Your task to perform on an android device: change alarm snooze length Image 0: 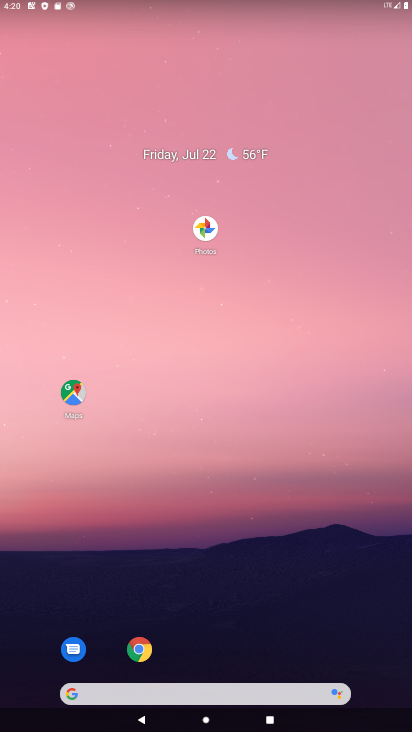
Step 0: drag from (282, 551) to (240, 136)
Your task to perform on an android device: change alarm snooze length Image 1: 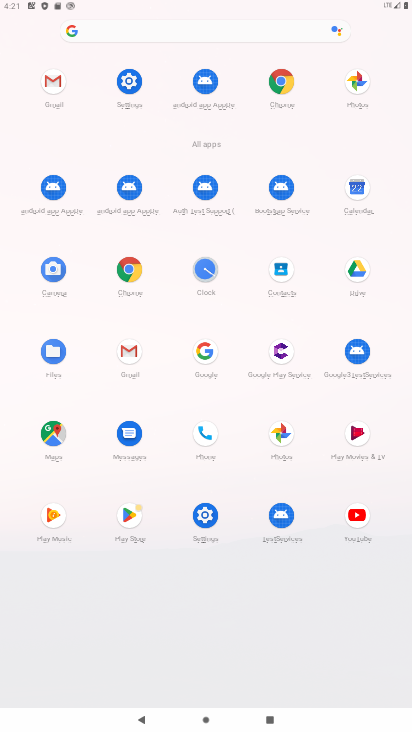
Step 1: click (194, 521)
Your task to perform on an android device: change alarm snooze length Image 2: 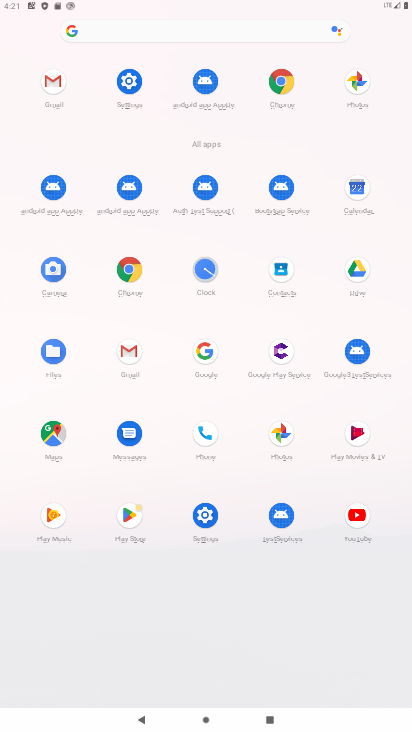
Step 2: click (194, 521)
Your task to perform on an android device: change alarm snooze length Image 3: 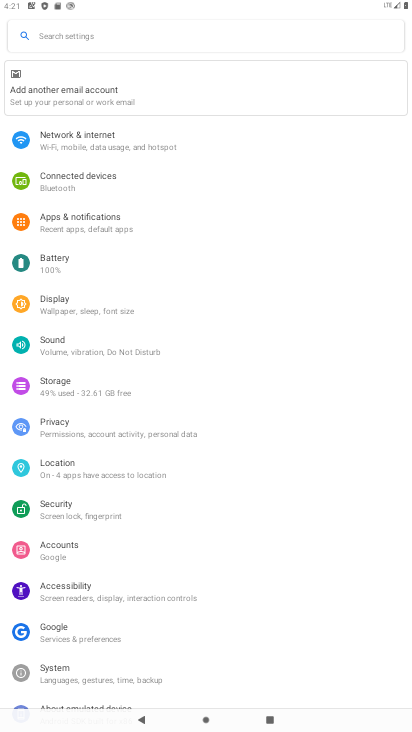
Step 3: press back button
Your task to perform on an android device: change alarm snooze length Image 4: 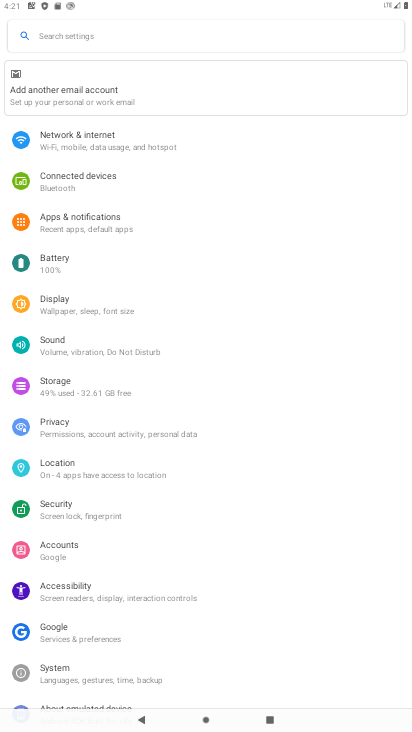
Step 4: press back button
Your task to perform on an android device: change alarm snooze length Image 5: 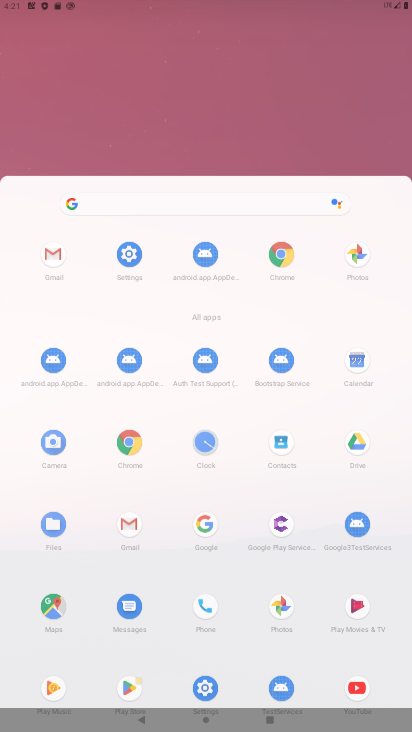
Step 5: press back button
Your task to perform on an android device: change alarm snooze length Image 6: 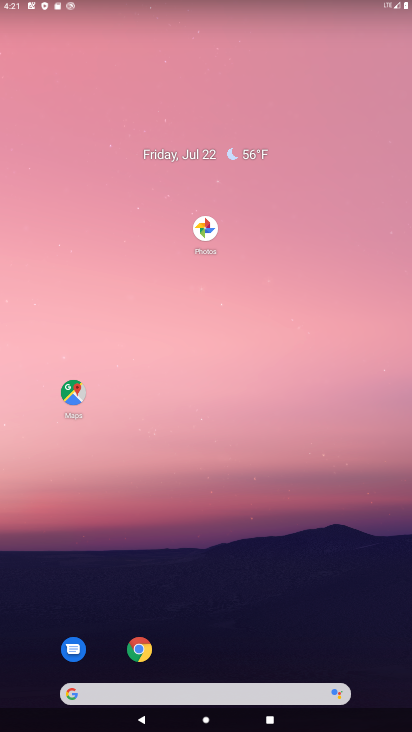
Step 6: drag from (249, 214) to (236, 14)
Your task to perform on an android device: change alarm snooze length Image 7: 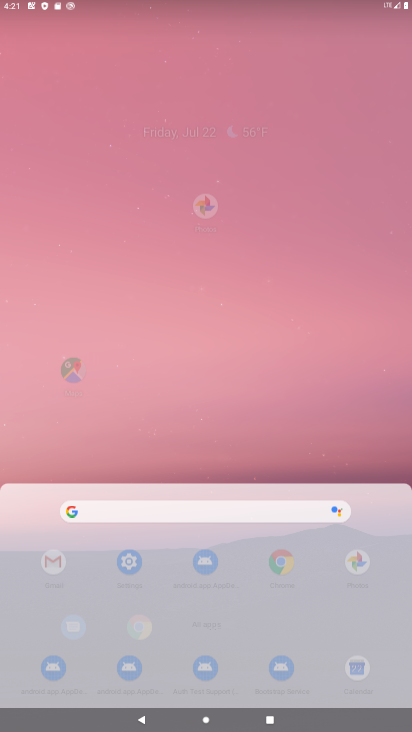
Step 7: drag from (237, 105) to (246, 21)
Your task to perform on an android device: change alarm snooze length Image 8: 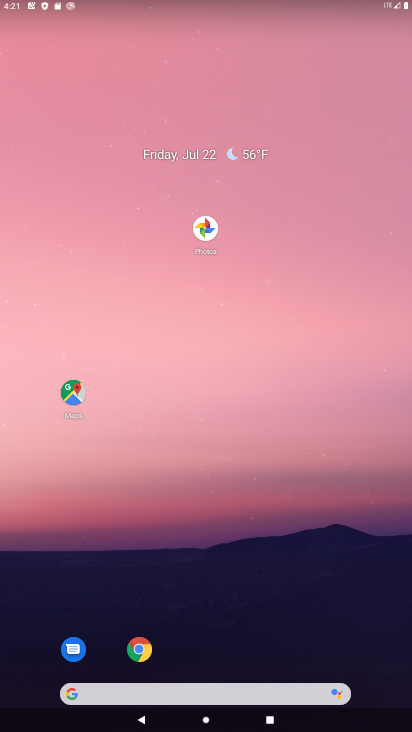
Step 8: drag from (246, 382) to (218, 58)
Your task to perform on an android device: change alarm snooze length Image 9: 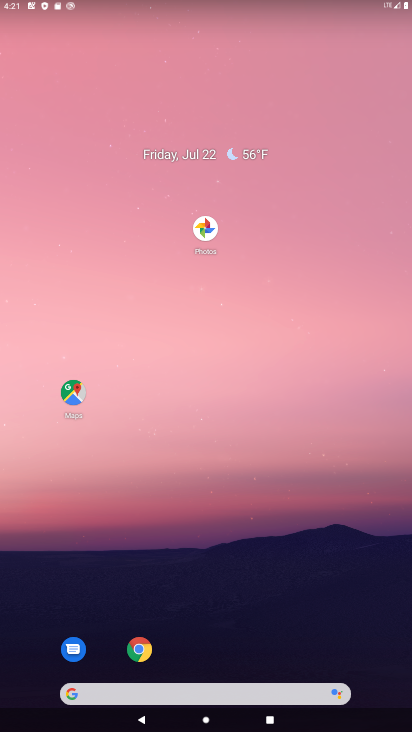
Step 9: click (195, 19)
Your task to perform on an android device: change alarm snooze length Image 10: 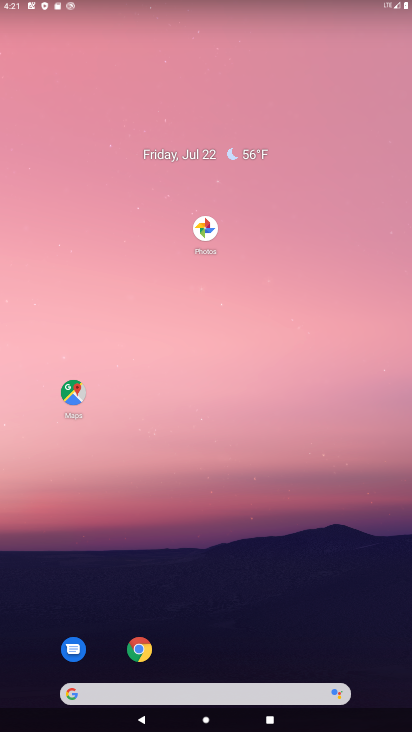
Step 10: drag from (235, 441) to (235, 6)
Your task to perform on an android device: change alarm snooze length Image 11: 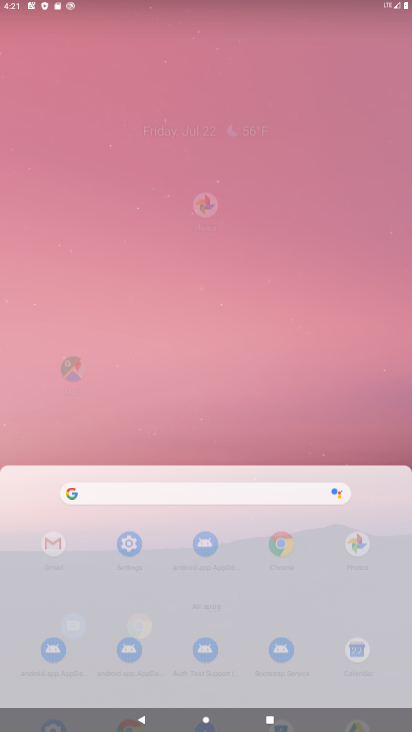
Step 11: drag from (213, 564) to (211, 45)
Your task to perform on an android device: change alarm snooze length Image 12: 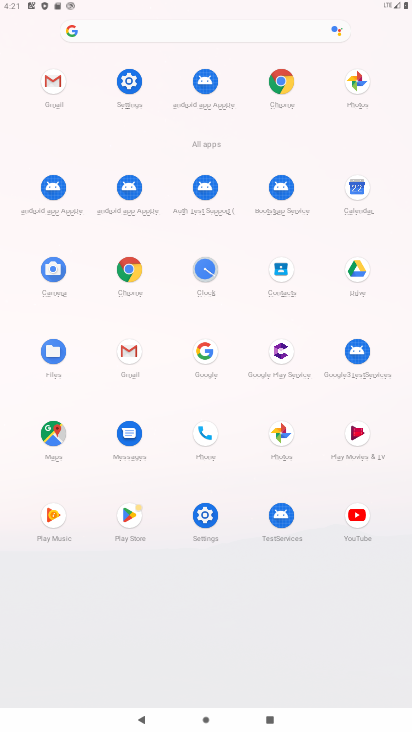
Step 12: click (126, 89)
Your task to perform on an android device: change alarm snooze length Image 13: 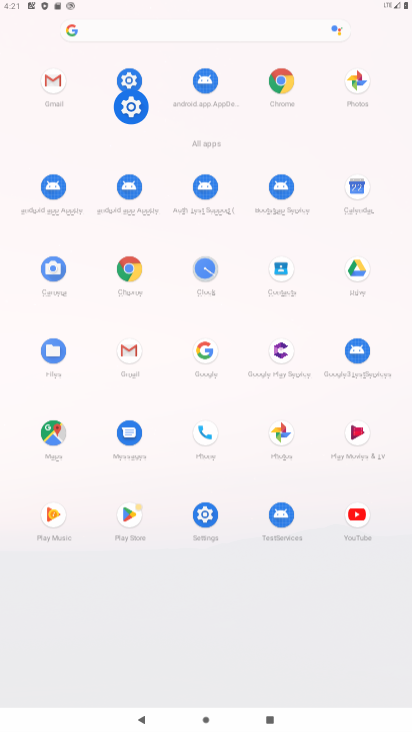
Step 13: click (128, 87)
Your task to perform on an android device: change alarm snooze length Image 14: 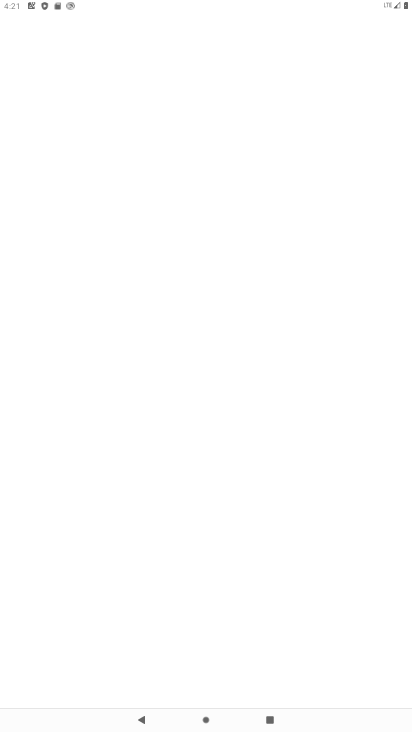
Step 14: click (128, 87)
Your task to perform on an android device: change alarm snooze length Image 15: 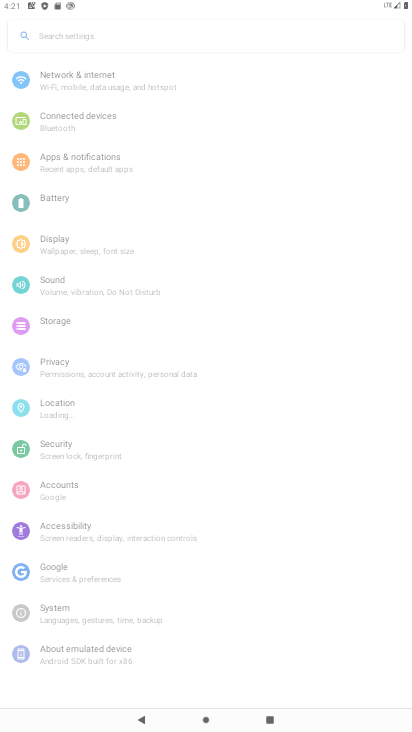
Step 15: click (128, 87)
Your task to perform on an android device: change alarm snooze length Image 16: 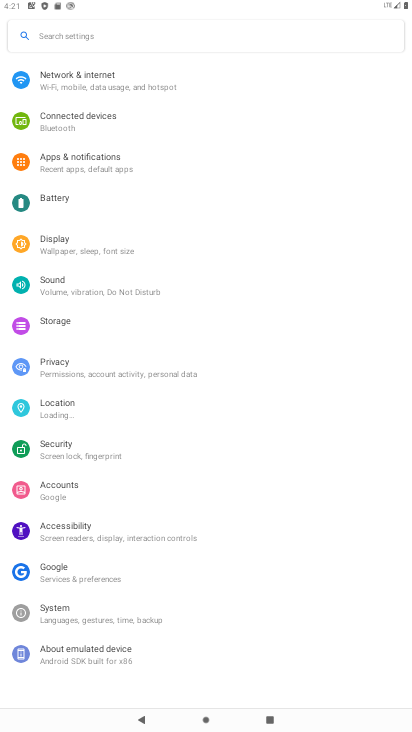
Step 16: click (128, 87)
Your task to perform on an android device: change alarm snooze length Image 17: 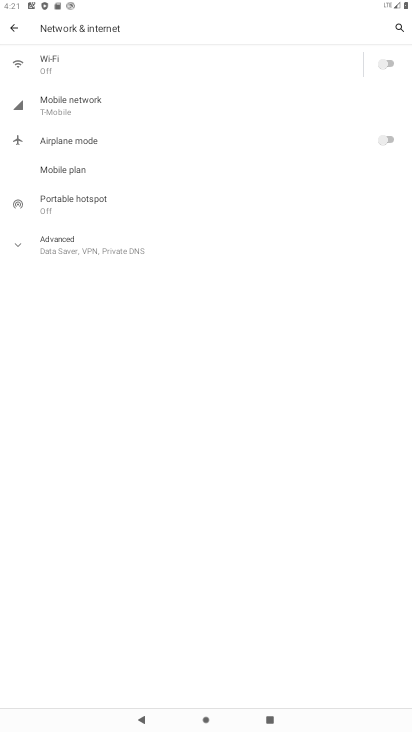
Step 17: click (6, 26)
Your task to perform on an android device: change alarm snooze length Image 18: 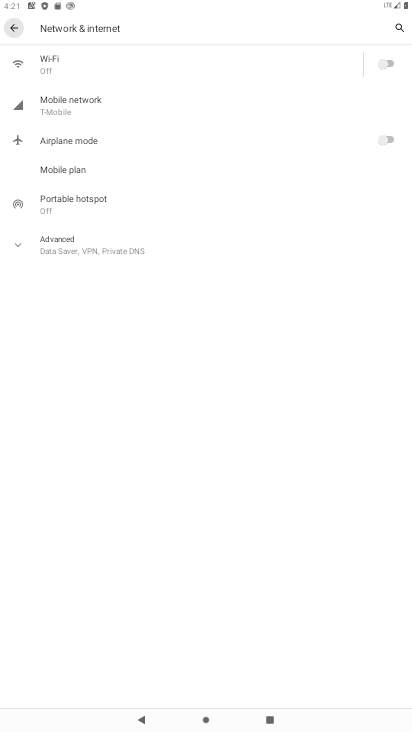
Step 18: click (7, 23)
Your task to perform on an android device: change alarm snooze length Image 19: 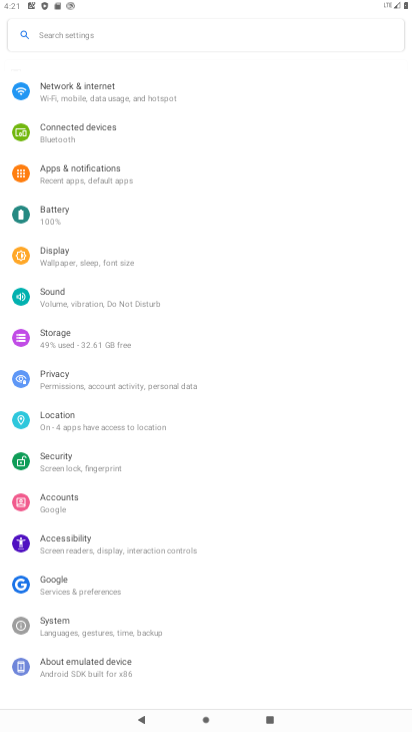
Step 19: click (7, 23)
Your task to perform on an android device: change alarm snooze length Image 20: 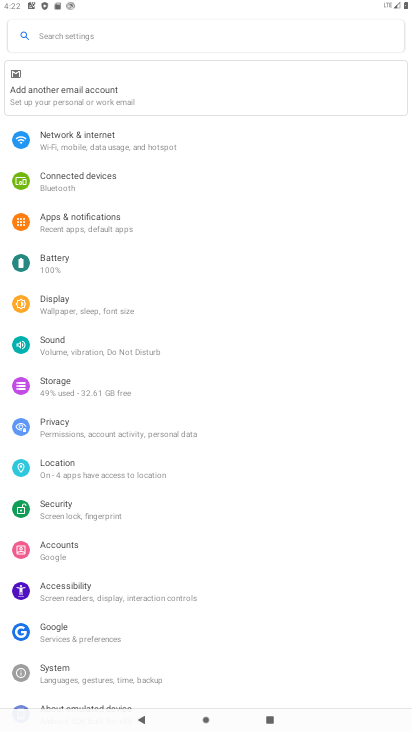
Step 20: click (59, 394)
Your task to perform on an android device: change alarm snooze length Image 21: 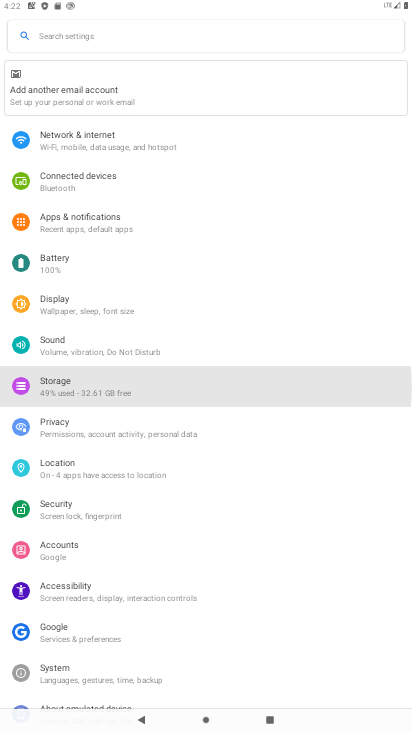
Step 21: click (62, 386)
Your task to perform on an android device: change alarm snooze length Image 22: 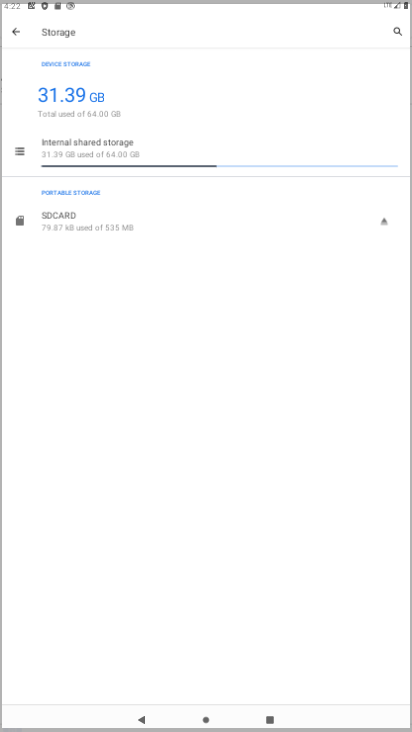
Step 22: click (62, 386)
Your task to perform on an android device: change alarm snooze length Image 23: 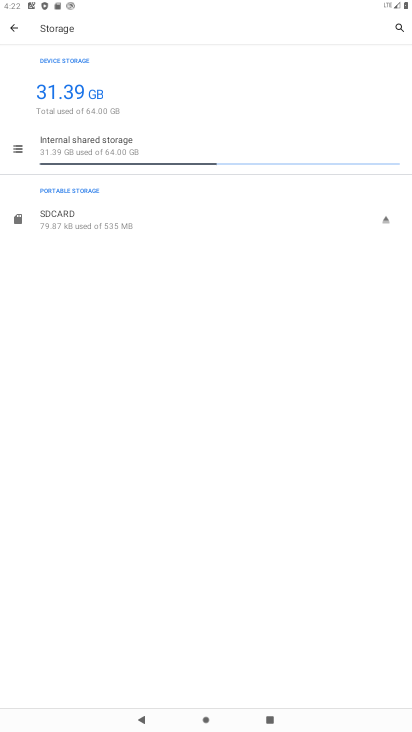
Step 23: click (16, 32)
Your task to perform on an android device: change alarm snooze length Image 24: 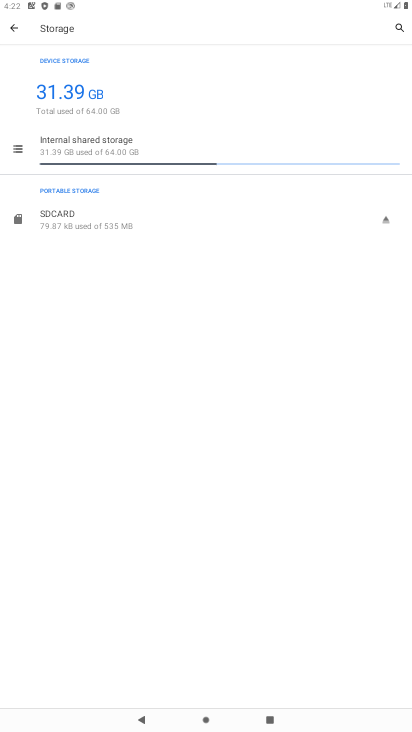
Step 24: click (16, 28)
Your task to perform on an android device: change alarm snooze length Image 25: 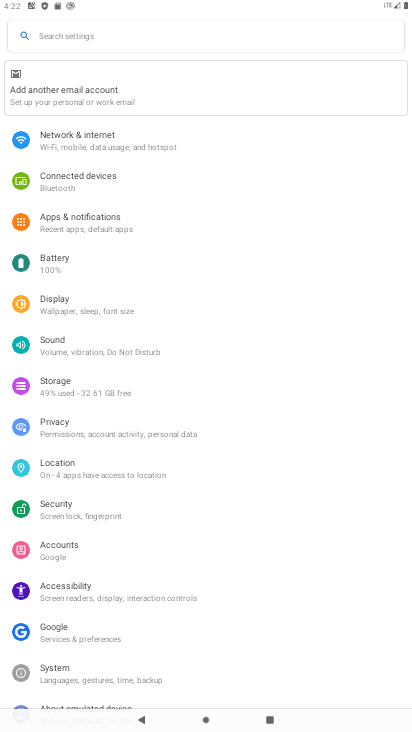
Step 25: drag from (107, 313) to (107, 214)
Your task to perform on an android device: change alarm snooze length Image 26: 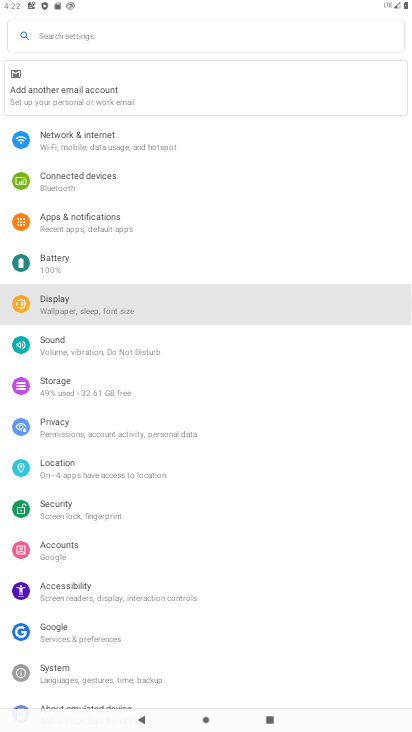
Step 26: drag from (103, 418) to (127, 157)
Your task to perform on an android device: change alarm snooze length Image 27: 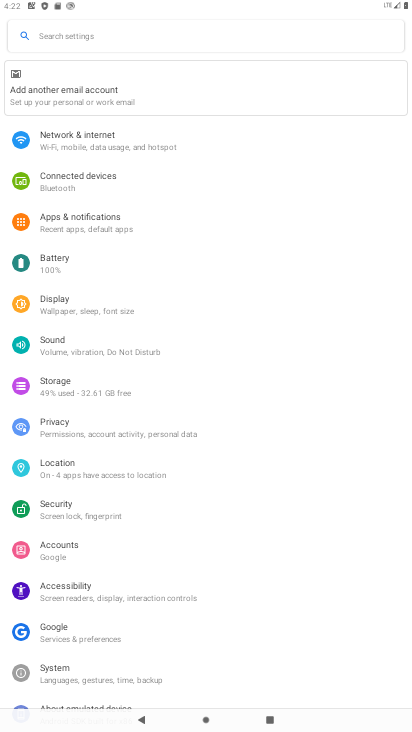
Step 27: drag from (100, 510) to (107, 194)
Your task to perform on an android device: change alarm snooze length Image 28: 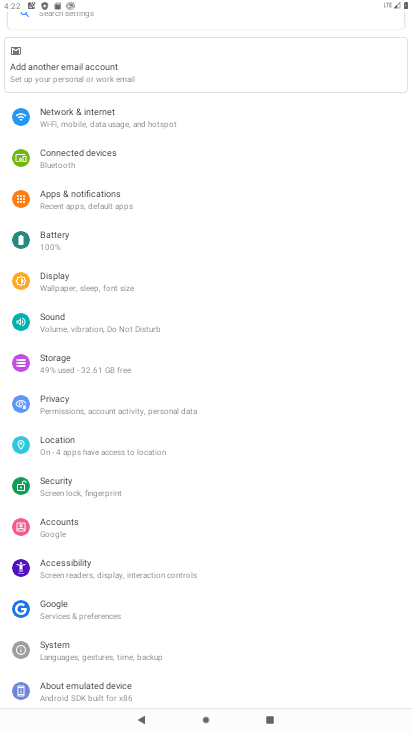
Step 28: drag from (137, 524) to (131, 184)
Your task to perform on an android device: change alarm snooze length Image 29: 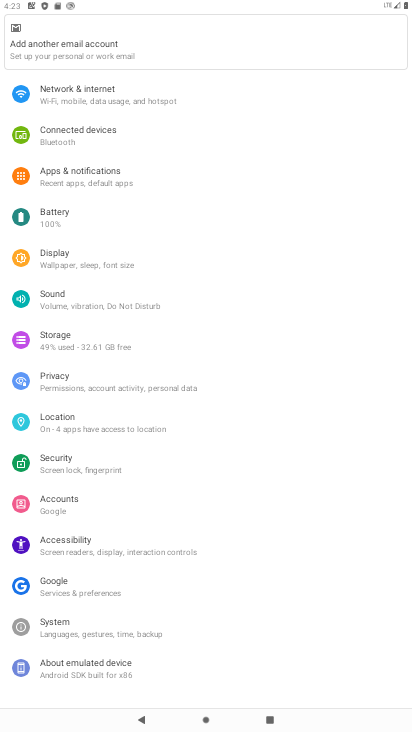
Step 29: press back button
Your task to perform on an android device: change alarm snooze length Image 30: 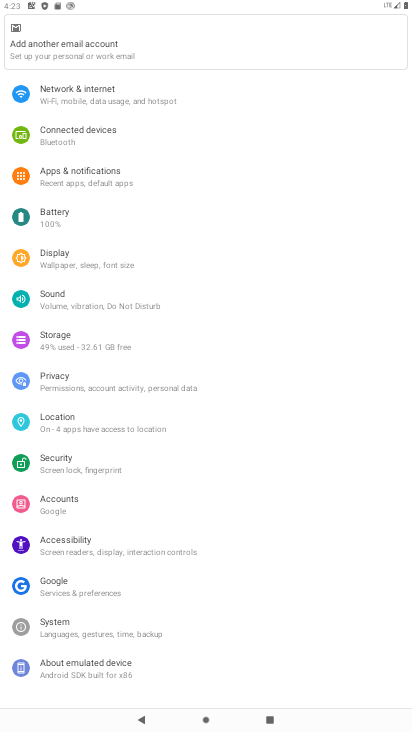
Step 30: press back button
Your task to perform on an android device: change alarm snooze length Image 31: 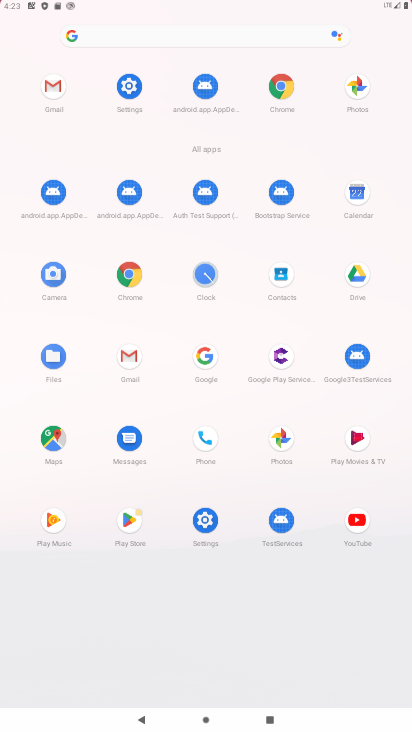
Step 31: press back button
Your task to perform on an android device: change alarm snooze length Image 32: 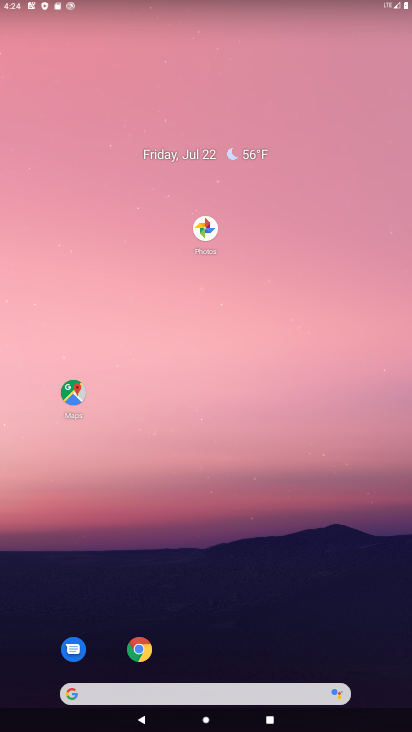
Step 32: drag from (267, 472) to (185, 33)
Your task to perform on an android device: change alarm snooze length Image 33: 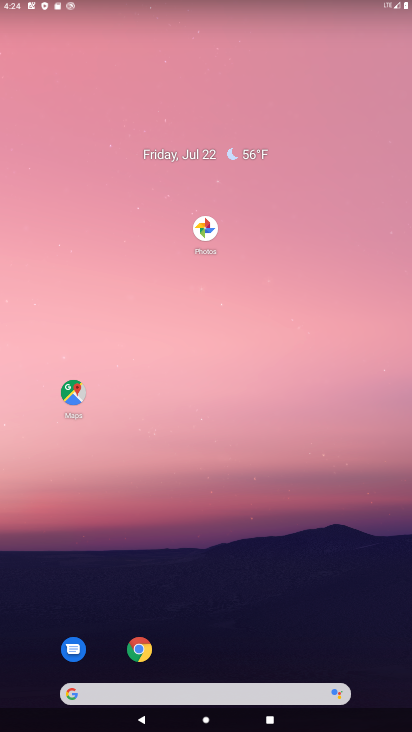
Step 33: drag from (157, 448) to (138, 25)
Your task to perform on an android device: change alarm snooze length Image 34: 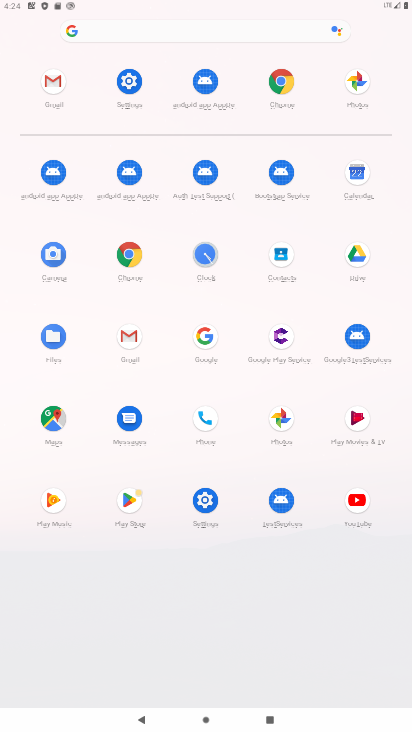
Step 34: drag from (193, 357) to (197, 18)
Your task to perform on an android device: change alarm snooze length Image 35: 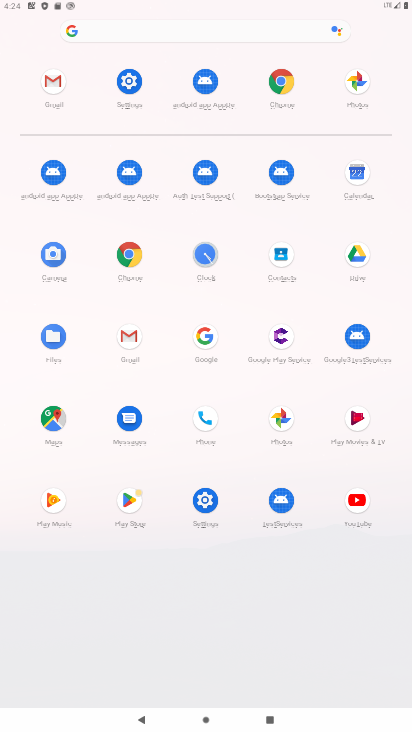
Step 35: click (198, 10)
Your task to perform on an android device: change alarm snooze length Image 36: 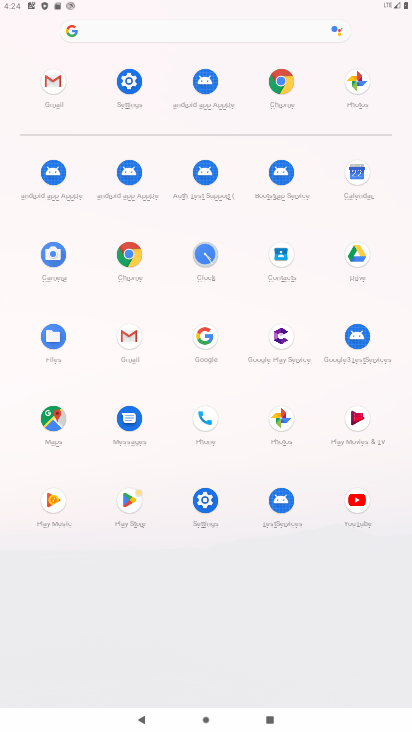
Step 36: click (198, 247)
Your task to perform on an android device: change alarm snooze length Image 37: 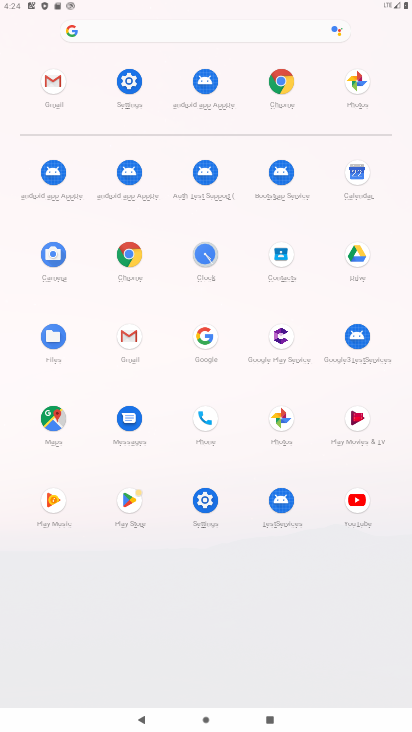
Step 37: click (199, 248)
Your task to perform on an android device: change alarm snooze length Image 38: 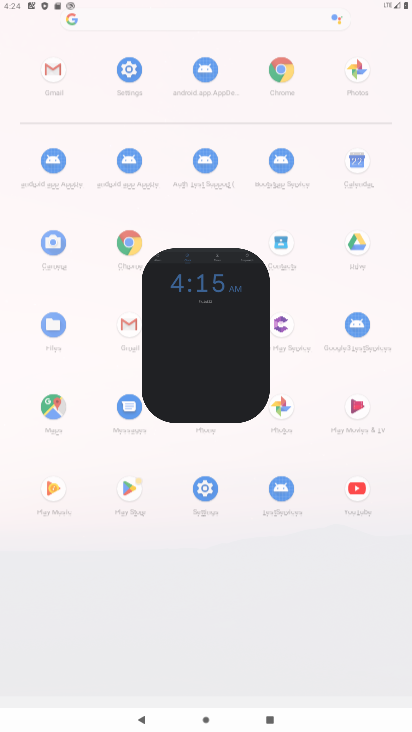
Step 38: click (199, 248)
Your task to perform on an android device: change alarm snooze length Image 39: 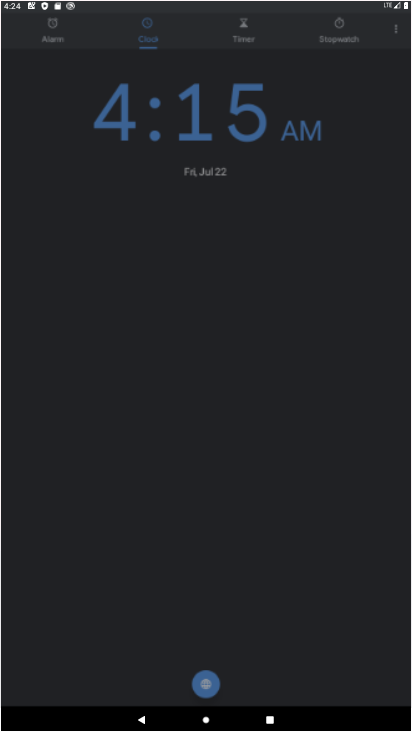
Step 39: click (199, 248)
Your task to perform on an android device: change alarm snooze length Image 40: 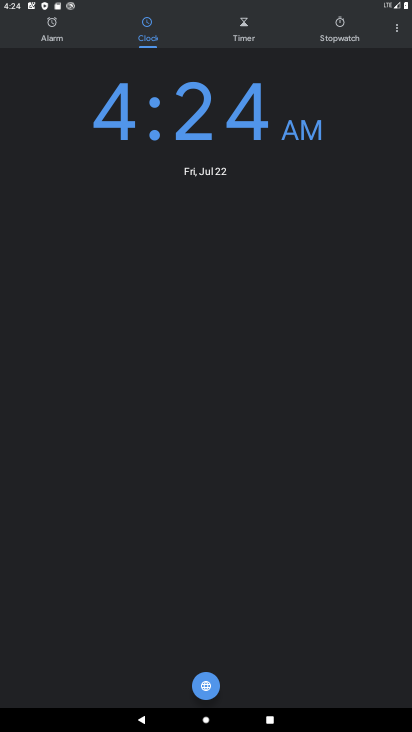
Step 40: click (397, 33)
Your task to perform on an android device: change alarm snooze length Image 41: 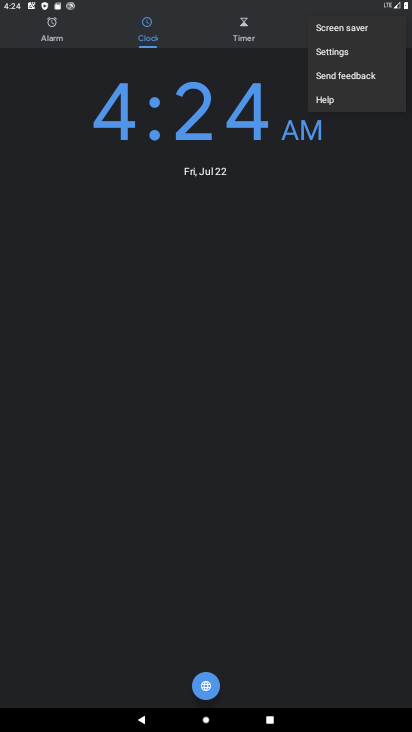
Step 41: click (311, 50)
Your task to perform on an android device: change alarm snooze length Image 42: 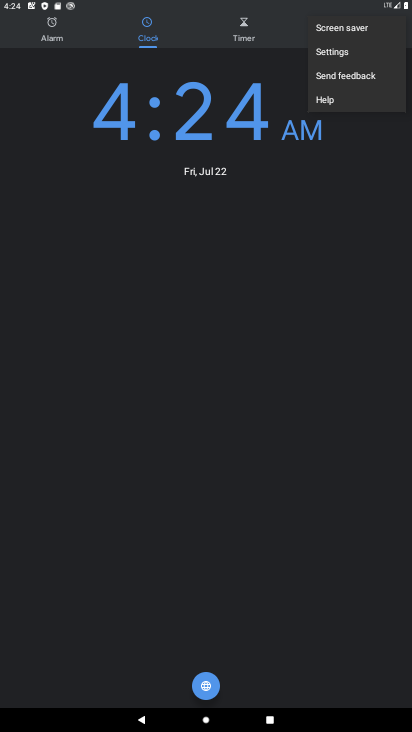
Step 42: click (317, 55)
Your task to perform on an android device: change alarm snooze length Image 43: 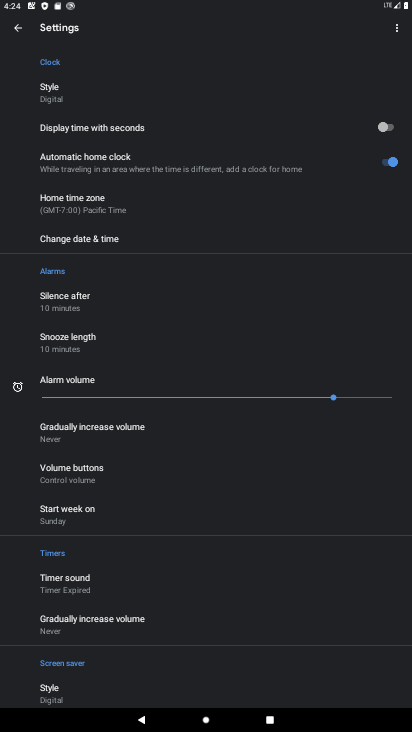
Step 43: click (72, 341)
Your task to perform on an android device: change alarm snooze length Image 44: 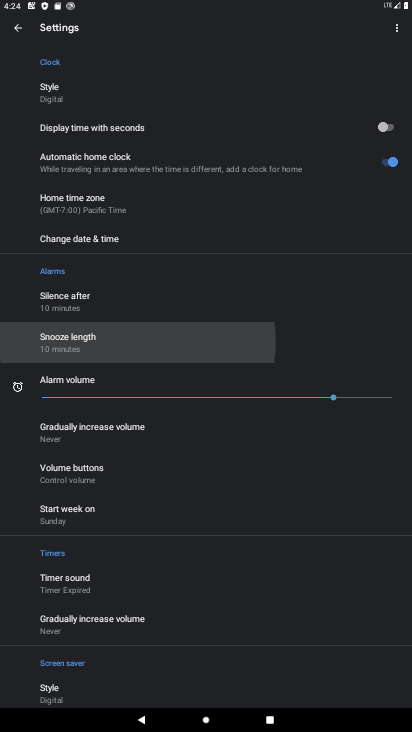
Step 44: click (72, 341)
Your task to perform on an android device: change alarm snooze length Image 45: 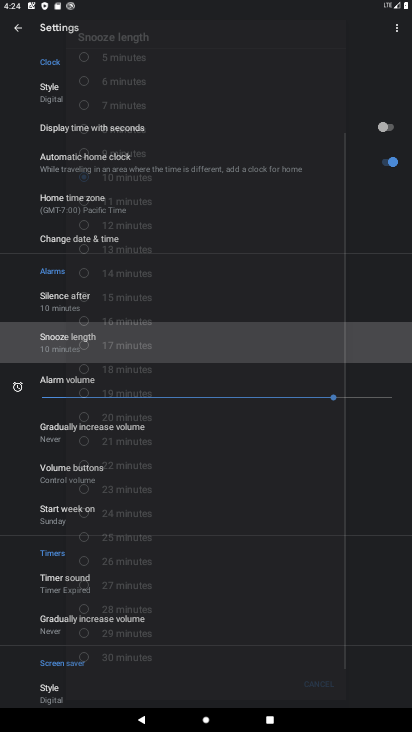
Step 45: click (75, 341)
Your task to perform on an android device: change alarm snooze length Image 46: 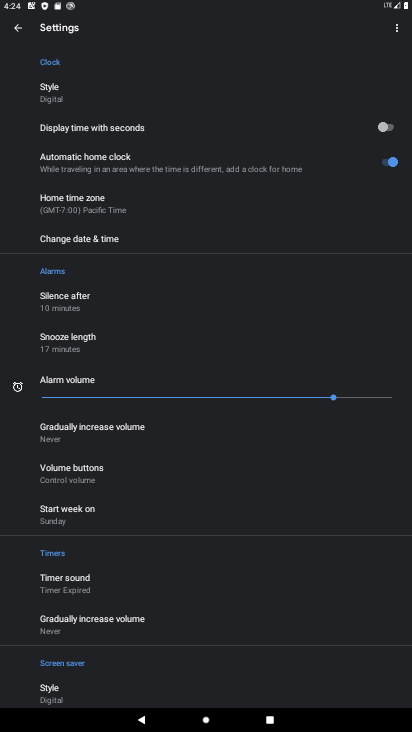
Step 46: click (64, 342)
Your task to perform on an android device: change alarm snooze length Image 47: 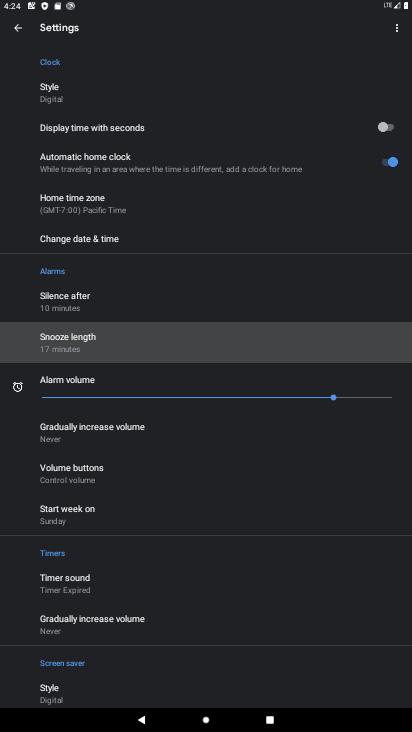
Step 47: click (64, 342)
Your task to perform on an android device: change alarm snooze length Image 48: 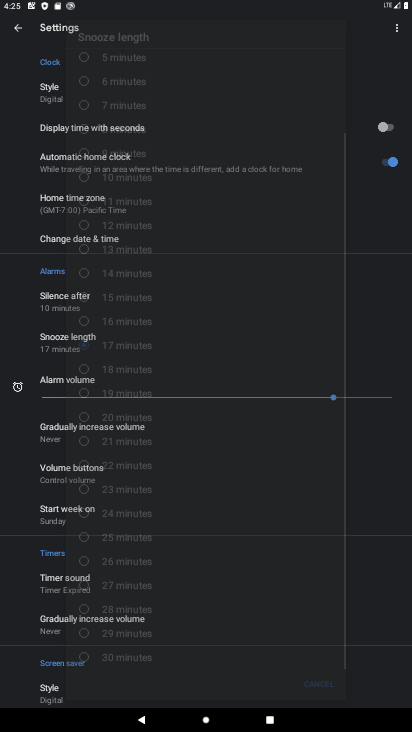
Step 48: click (63, 342)
Your task to perform on an android device: change alarm snooze length Image 49: 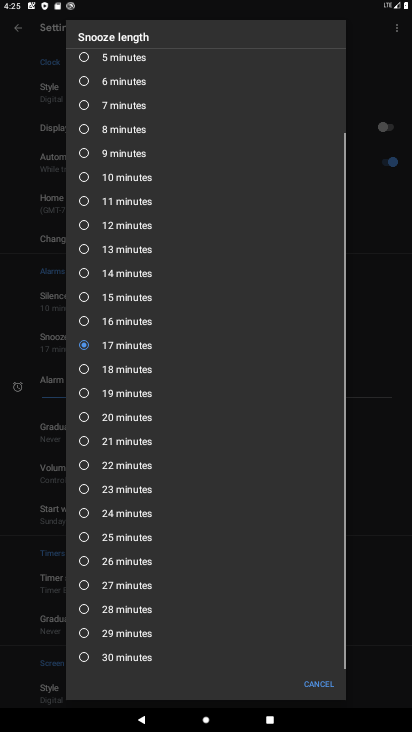
Step 49: click (63, 342)
Your task to perform on an android device: change alarm snooze length Image 50: 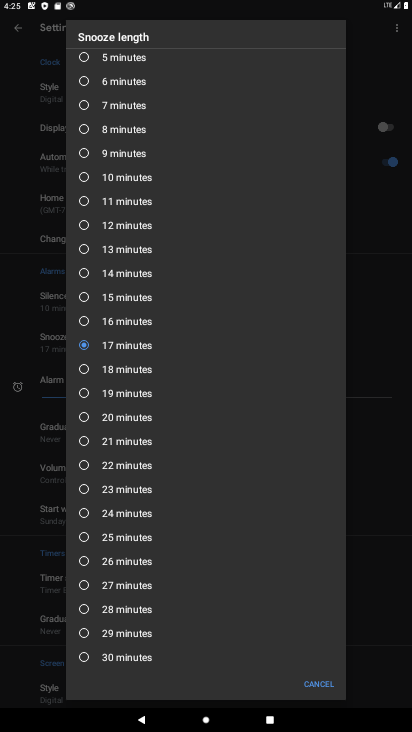
Step 50: click (85, 278)
Your task to perform on an android device: change alarm snooze length Image 51: 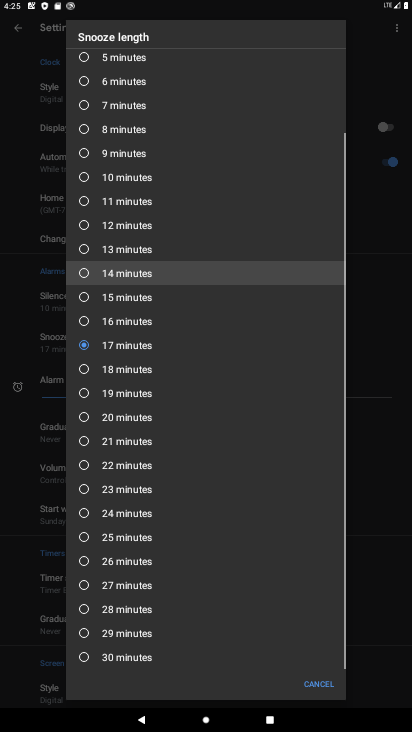
Step 51: click (88, 271)
Your task to perform on an android device: change alarm snooze length Image 52: 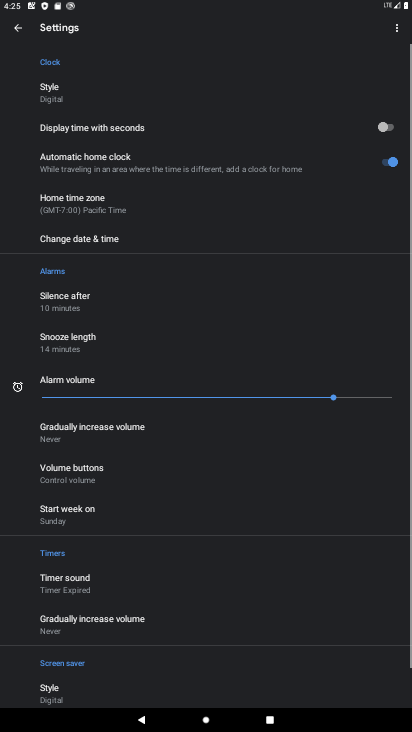
Step 52: task complete